Your task to perform on an android device: Go to privacy settings Image 0: 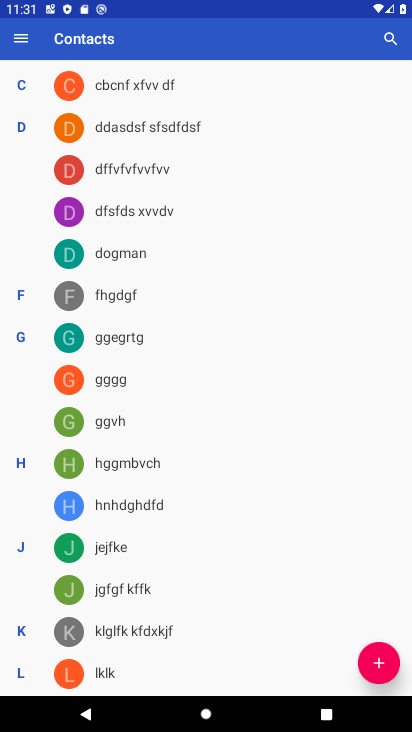
Step 0: press home button
Your task to perform on an android device: Go to privacy settings Image 1: 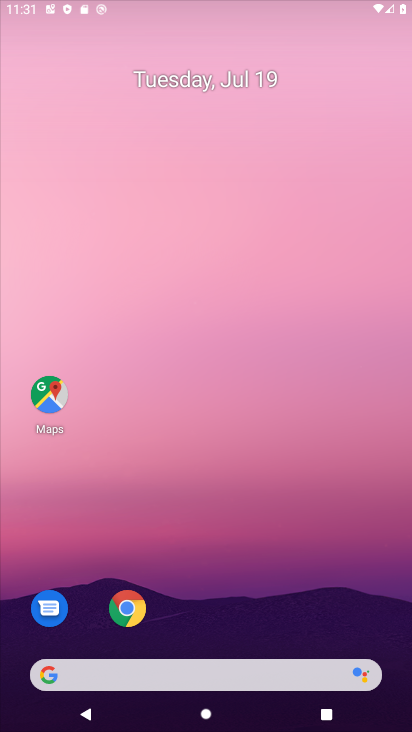
Step 1: drag from (226, 631) to (210, 70)
Your task to perform on an android device: Go to privacy settings Image 2: 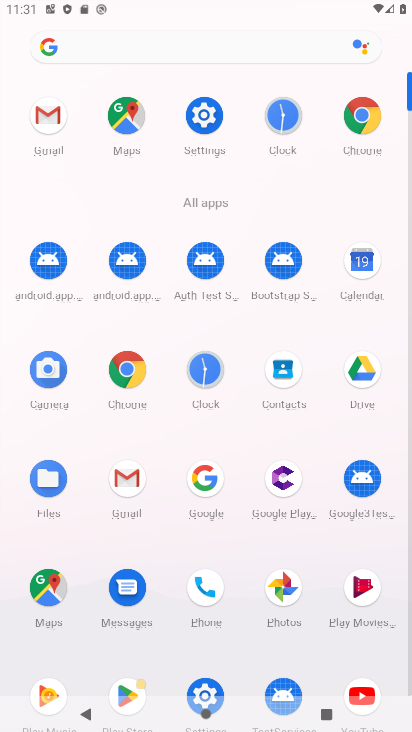
Step 2: click (201, 117)
Your task to perform on an android device: Go to privacy settings Image 3: 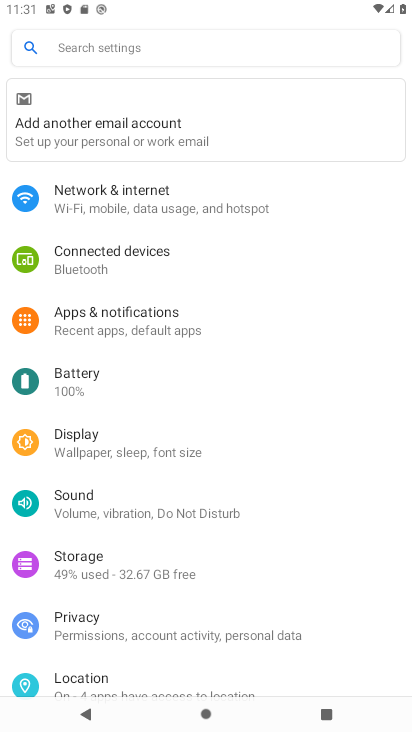
Step 3: click (87, 628)
Your task to perform on an android device: Go to privacy settings Image 4: 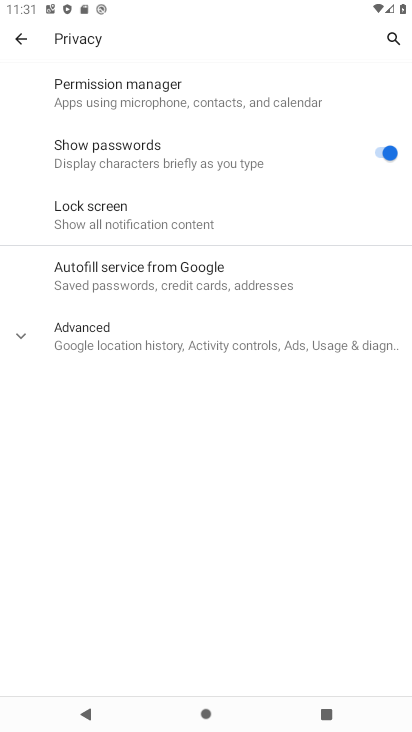
Step 4: task complete